Your task to perform on an android device: turn on priority inbox in the gmail app Image 0: 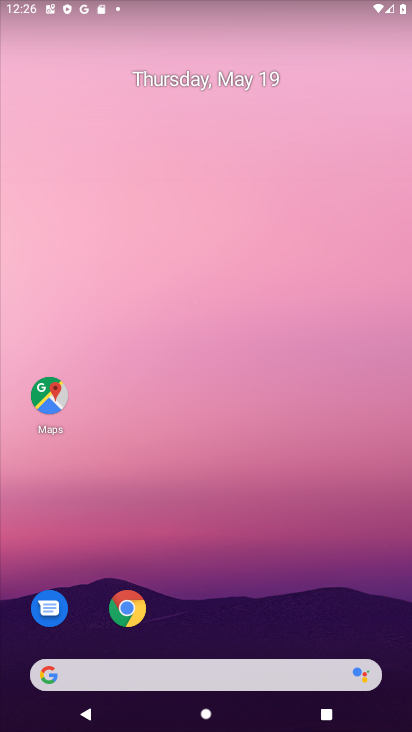
Step 0: drag from (282, 596) to (318, 203)
Your task to perform on an android device: turn on priority inbox in the gmail app Image 1: 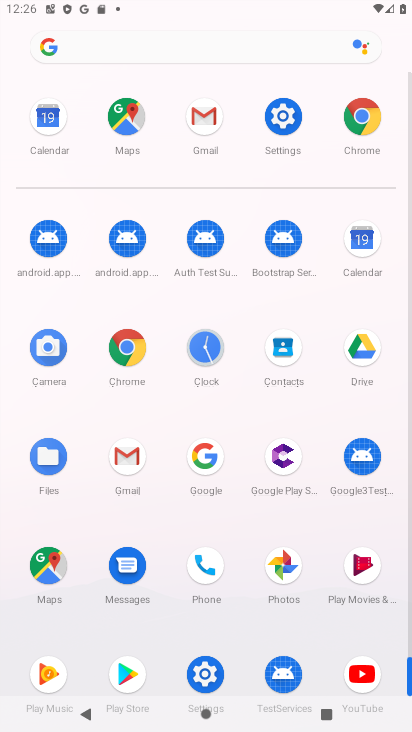
Step 1: click (124, 458)
Your task to perform on an android device: turn on priority inbox in the gmail app Image 2: 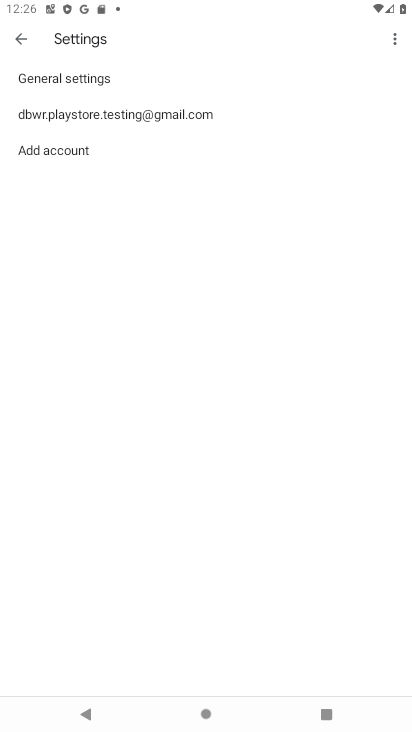
Step 2: click (164, 104)
Your task to perform on an android device: turn on priority inbox in the gmail app Image 3: 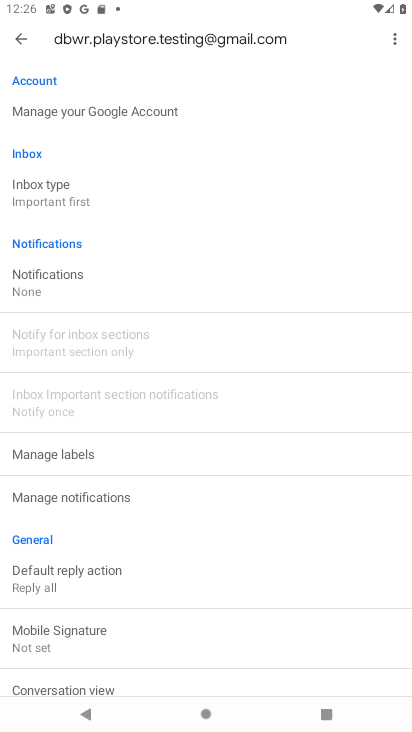
Step 3: drag from (261, 720) to (305, 394)
Your task to perform on an android device: turn on priority inbox in the gmail app Image 4: 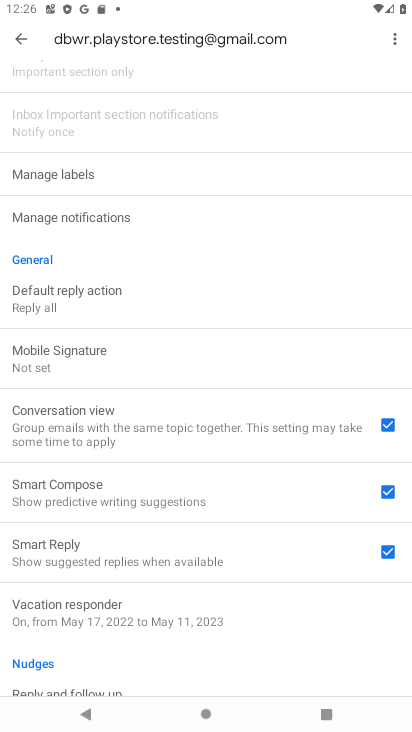
Step 4: drag from (172, 148) to (177, 607)
Your task to perform on an android device: turn on priority inbox in the gmail app Image 5: 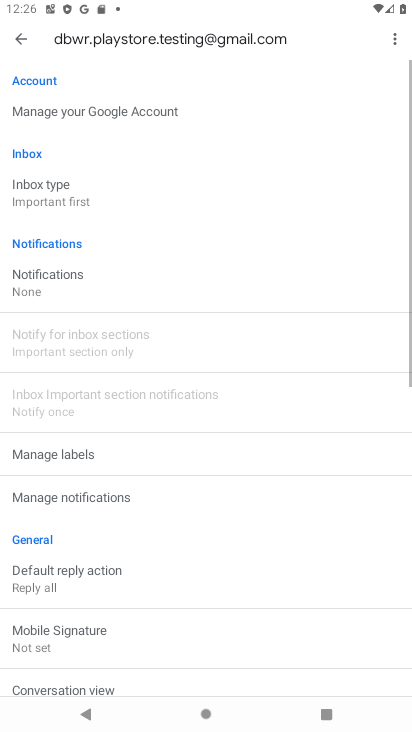
Step 5: drag from (86, 137) to (136, 484)
Your task to perform on an android device: turn on priority inbox in the gmail app Image 6: 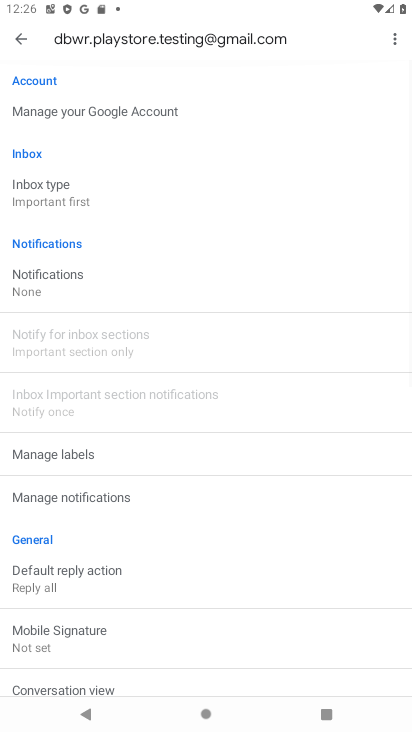
Step 6: click (70, 191)
Your task to perform on an android device: turn on priority inbox in the gmail app Image 7: 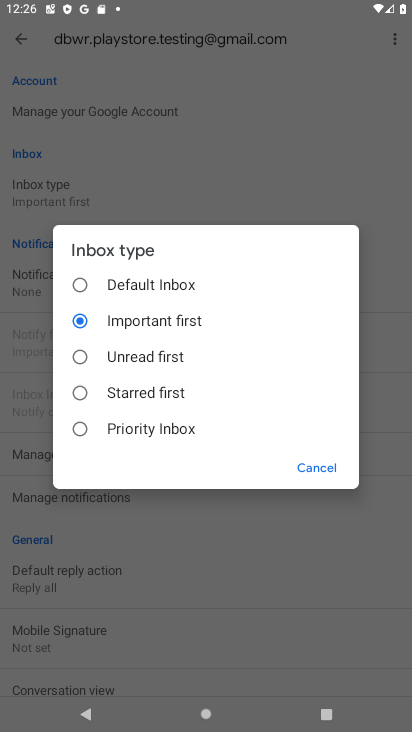
Step 7: click (124, 437)
Your task to perform on an android device: turn on priority inbox in the gmail app Image 8: 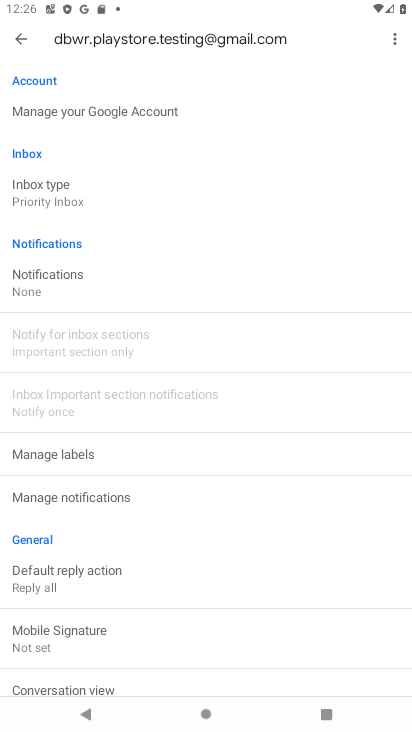
Step 8: task complete